Your task to perform on an android device: turn off data saver in the chrome app Image 0: 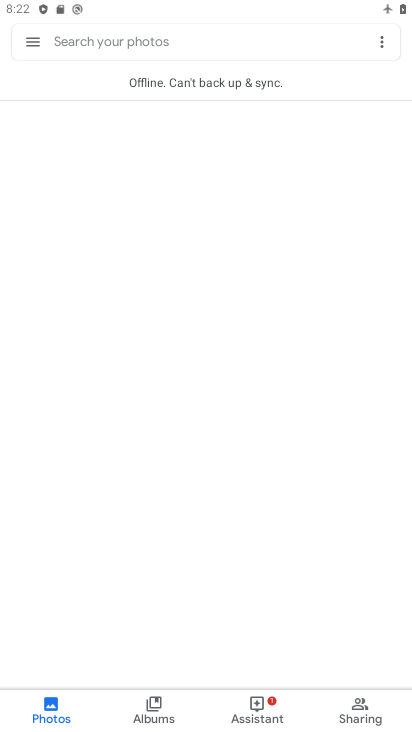
Step 0: press home button
Your task to perform on an android device: turn off data saver in the chrome app Image 1: 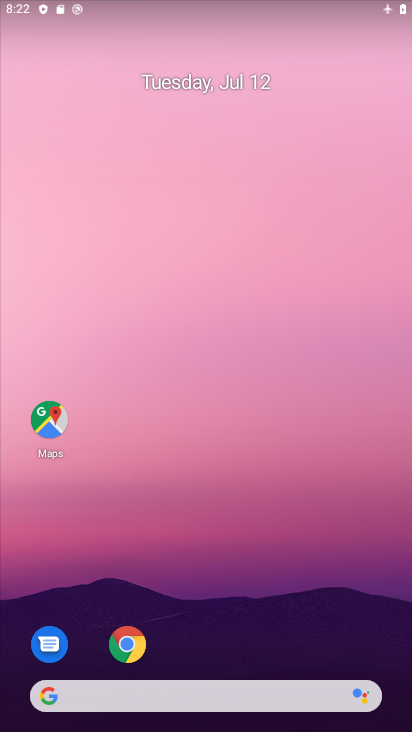
Step 1: click (127, 649)
Your task to perform on an android device: turn off data saver in the chrome app Image 2: 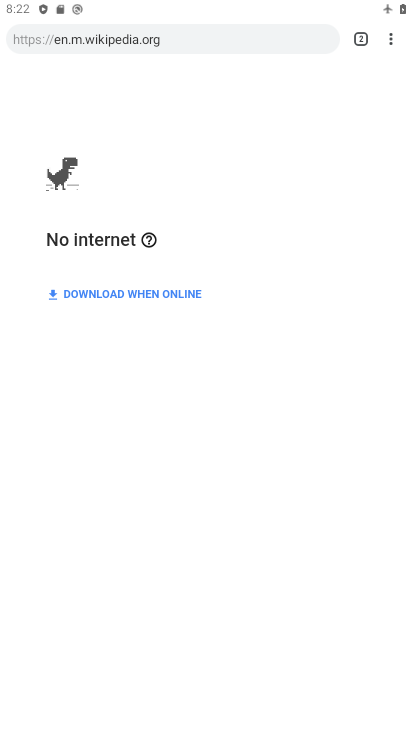
Step 2: click (397, 35)
Your task to perform on an android device: turn off data saver in the chrome app Image 3: 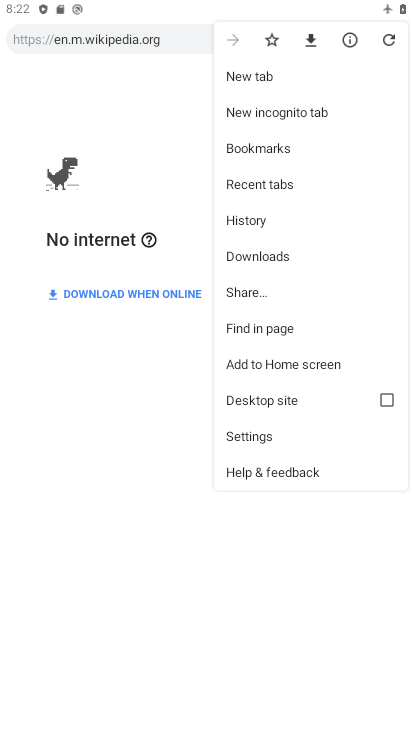
Step 3: click (263, 423)
Your task to perform on an android device: turn off data saver in the chrome app Image 4: 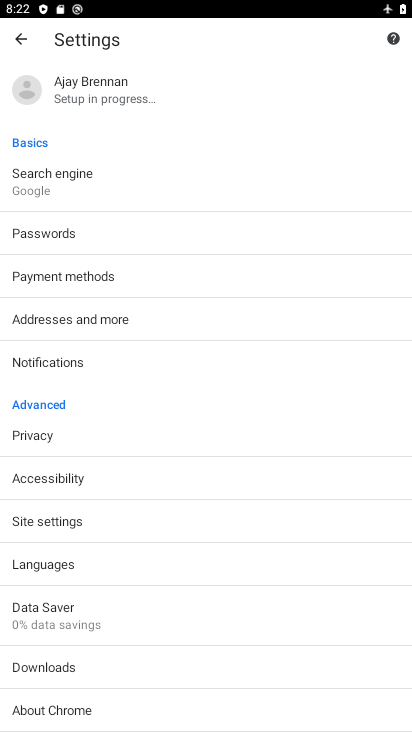
Step 4: click (90, 626)
Your task to perform on an android device: turn off data saver in the chrome app Image 5: 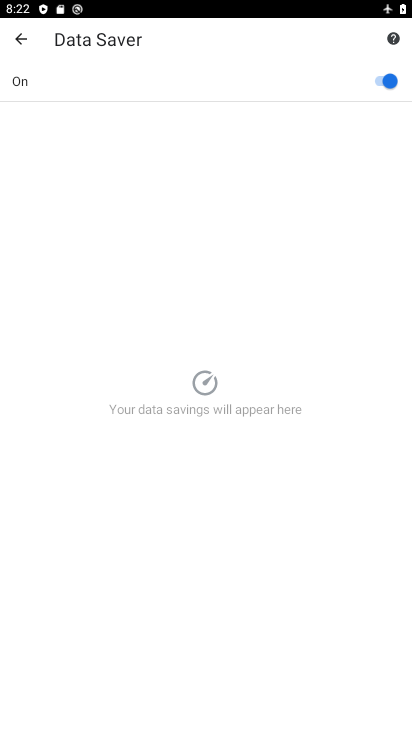
Step 5: click (375, 75)
Your task to perform on an android device: turn off data saver in the chrome app Image 6: 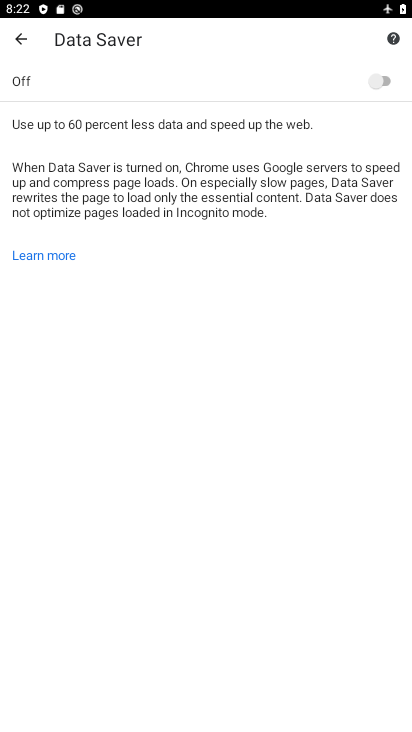
Step 6: task complete